Your task to perform on an android device: Go to network settings Image 0: 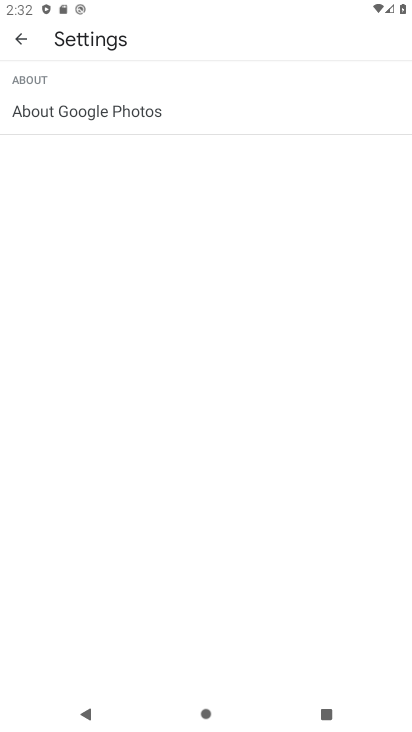
Step 0: press home button
Your task to perform on an android device: Go to network settings Image 1: 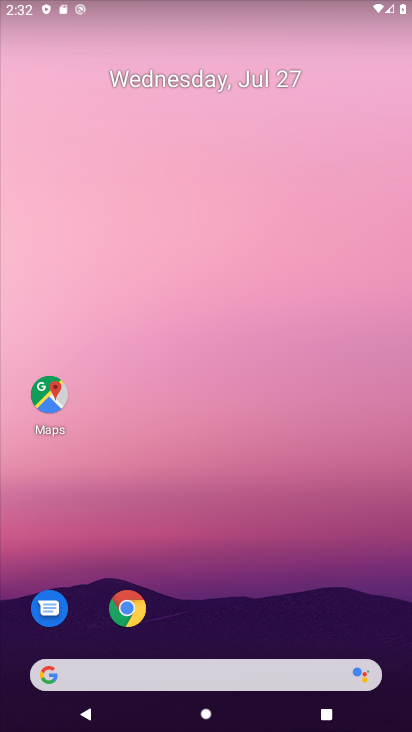
Step 1: drag from (304, 620) to (372, 80)
Your task to perform on an android device: Go to network settings Image 2: 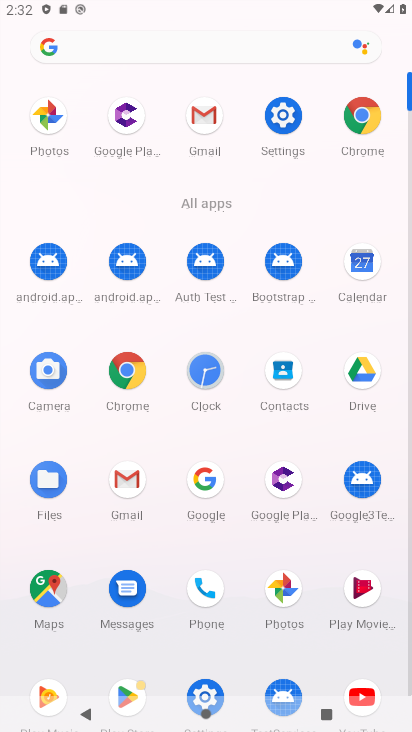
Step 2: click (285, 108)
Your task to perform on an android device: Go to network settings Image 3: 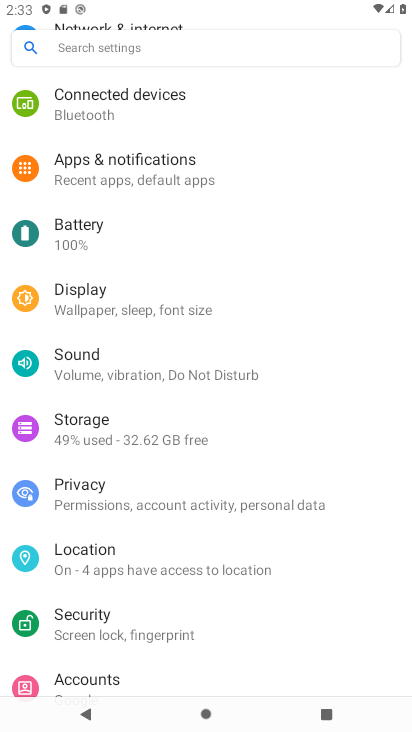
Step 3: drag from (146, 146) to (149, 401)
Your task to perform on an android device: Go to network settings Image 4: 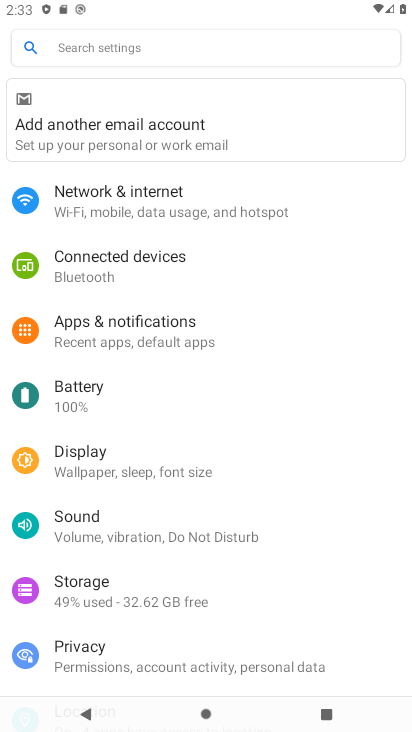
Step 4: click (118, 188)
Your task to perform on an android device: Go to network settings Image 5: 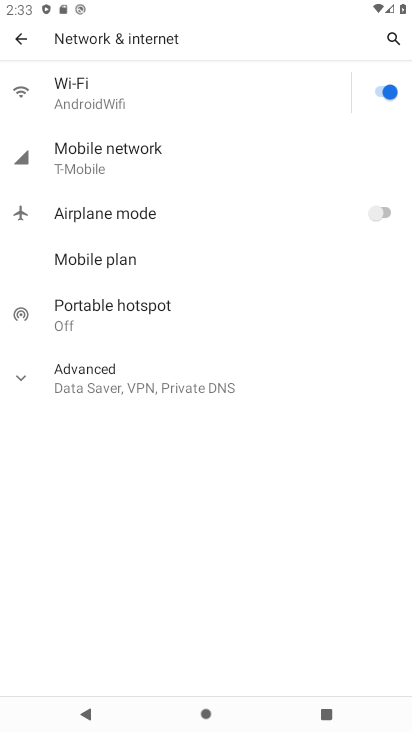
Step 5: task complete